Your task to perform on an android device: turn pop-ups off in chrome Image 0: 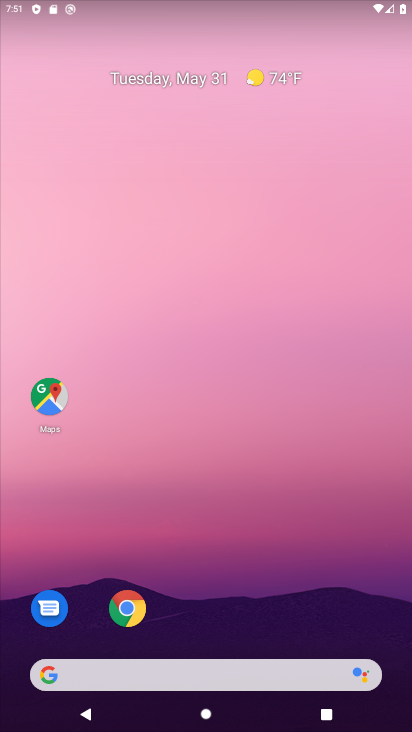
Step 0: drag from (219, 649) to (228, 35)
Your task to perform on an android device: turn pop-ups off in chrome Image 1: 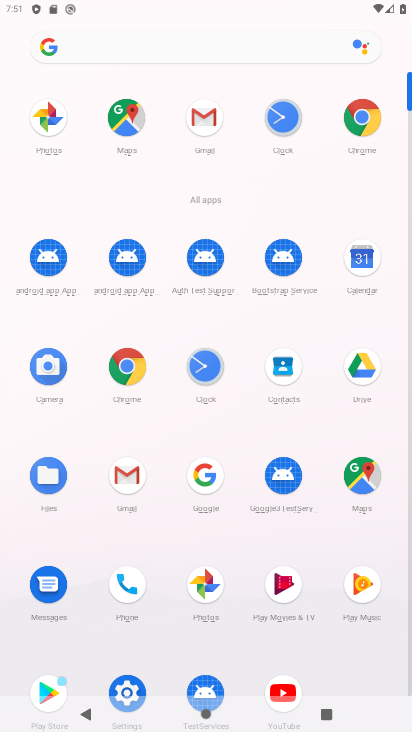
Step 1: click (368, 113)
Your task to perform on an android device: turn pop-ups off in chrome Image 2: 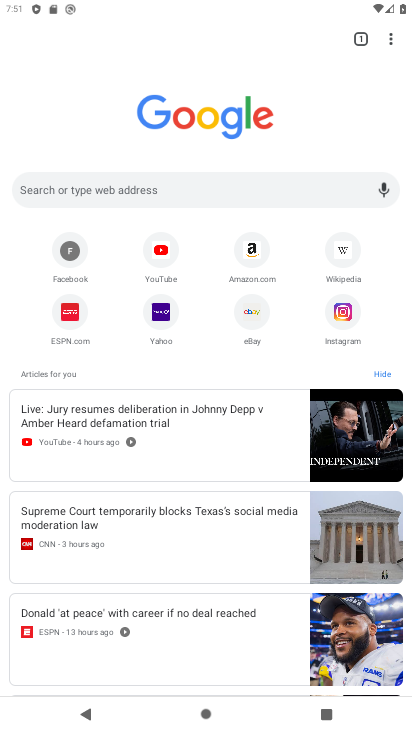
Step 2: click (392, 37)
Your task to perform on an android device: turn pop-ups off in chrome Image 3: 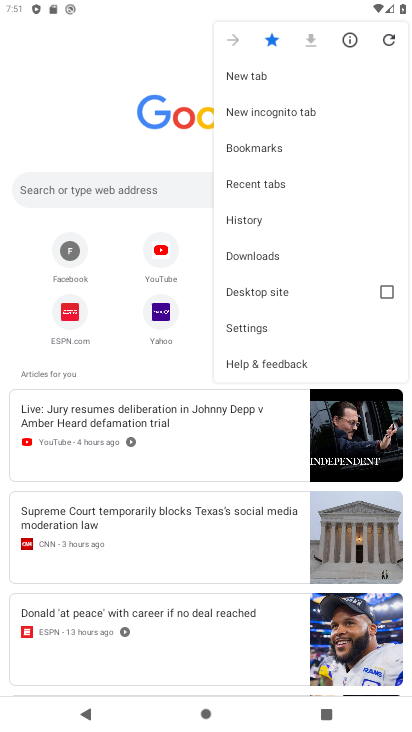
Step 3: click (243, 326)
Your task to perform on an android device: turn pop-ups off in chrome Image 4: 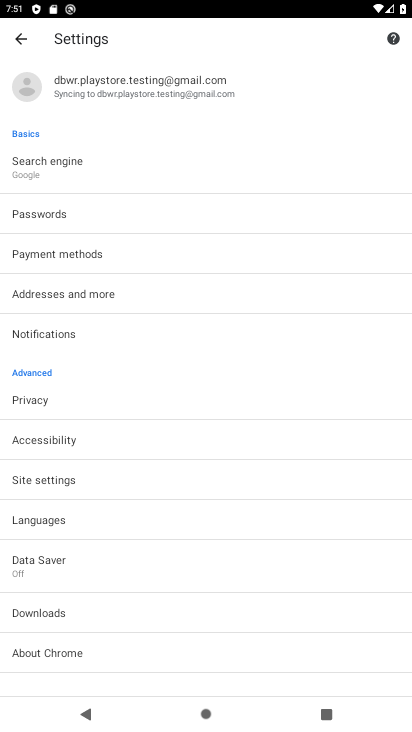
Step 4: click (60, 486)
Your task to perform on an android device: turn pop-ups off in chrome Image 5: 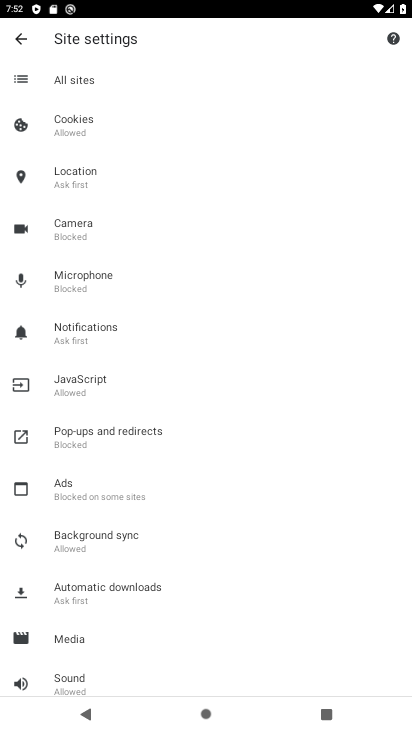
Step 5: drag from (137, 558) to (97, 97)
Your task to perform on an android device: turn pop-ups off in chrome Image 6: 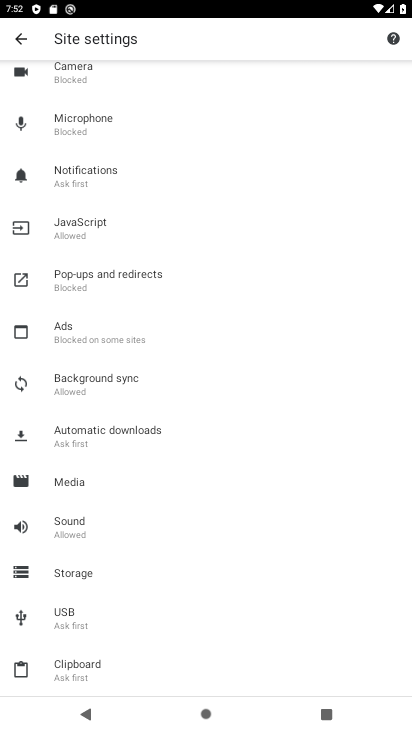
Step 6: click (86, 275)
Your task to perform on an android device: turn pop-ups off in chrome Image 7: 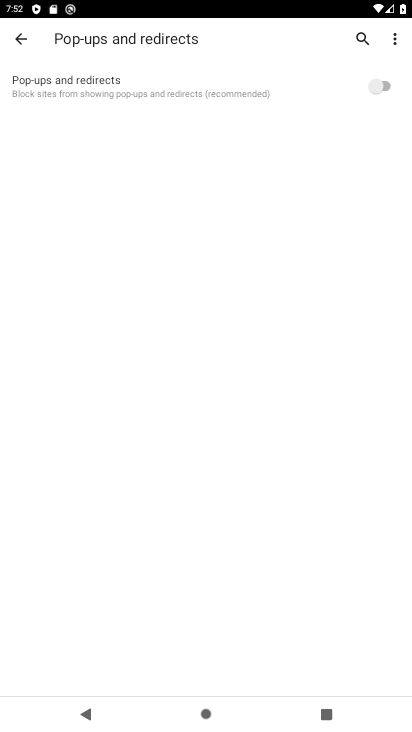
Step 7: task complete